Your task to perform on an android device: Go to Wikipedia Image 0: 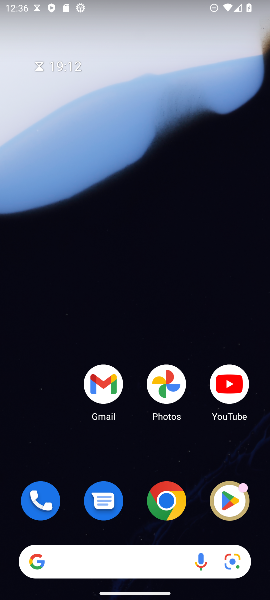
Step 0: drag from (130, 350) to (131, 143)
Your task to perform on an android device: Go to Wikipedia Image 1: 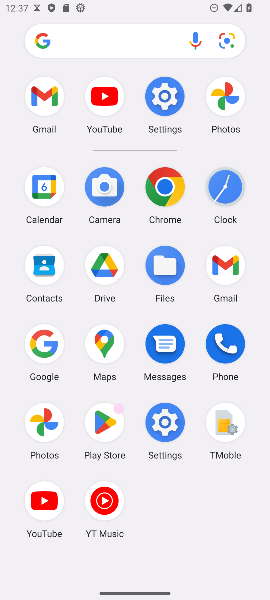
Step 1: click (164, 195)
Your task to perform on an android device: Go to Wikipedia Image 2: 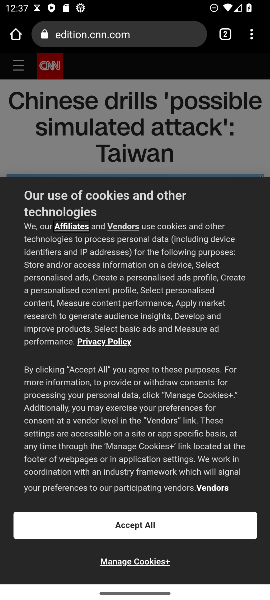
Step 2: click (90, 30)
Your task to perform on an android device: Go to Wikipedia Image 3: 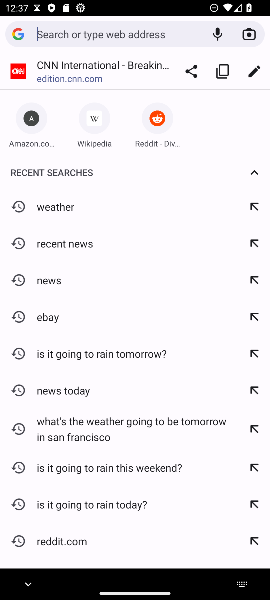
Step 3: type "www.wikipedia.com"
Your task to perform on an android device: Go to Wikipedia Image 4: 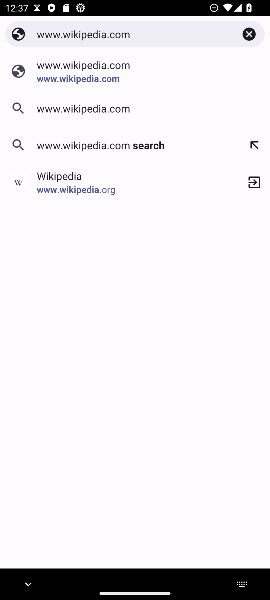
Step 4: click (69, 79)
Your task to perform on an android device: Go to Wikipedia Image 5: 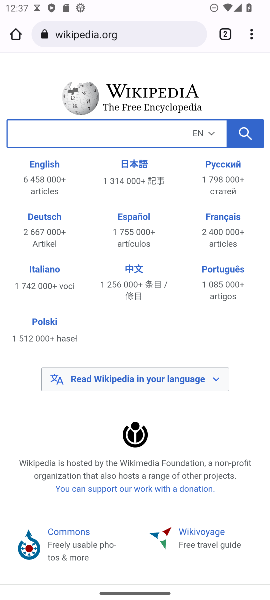
Step 5: task complete